Your task to perform on an android device: Turn off the flashlight Image 0: 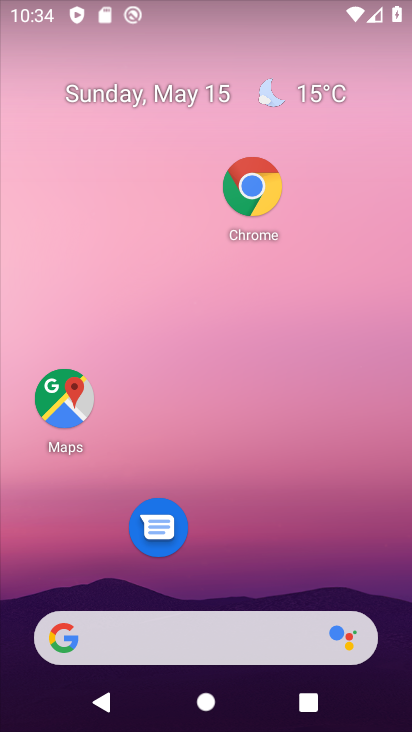
Step 0: drag from (253, 518) to (247, 8)
Your task to perform on an android device: Turn off the flashlight Image 1: 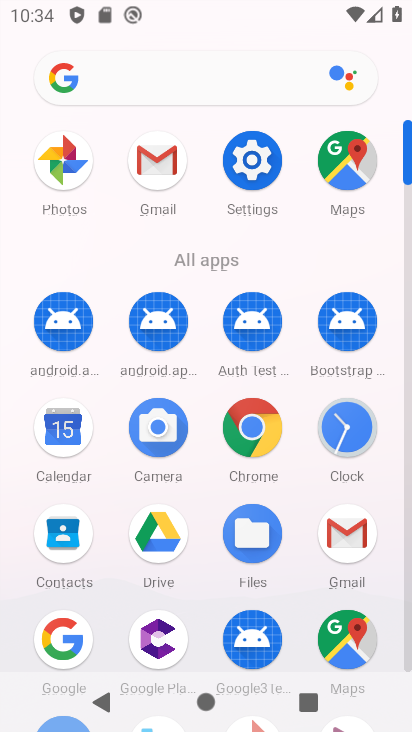
Step 1: click (244, 160)
Your task to perform on an android device: Turn off the flashlight Image 2: 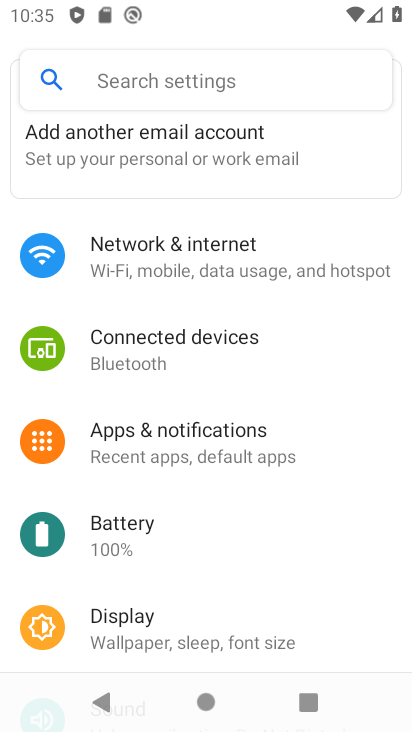
Step 2: task complete